Your task to perform on an android device: toggle improve location accuracy Image 0: 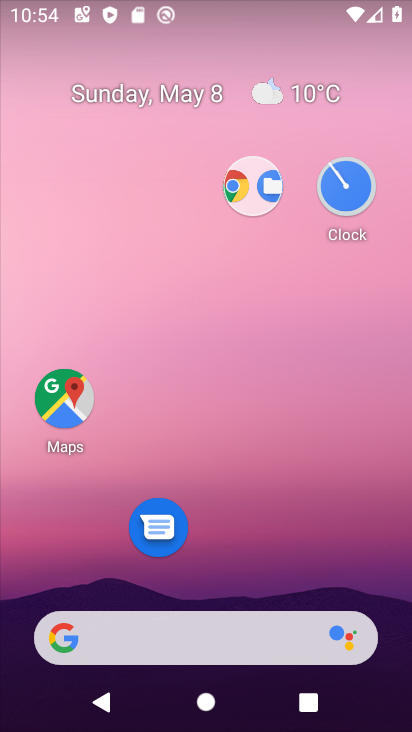
Step 0: drag from (306, 575) to (337, 5)
Your task to perform on an android device: toggle improve location accuracy Image 1: 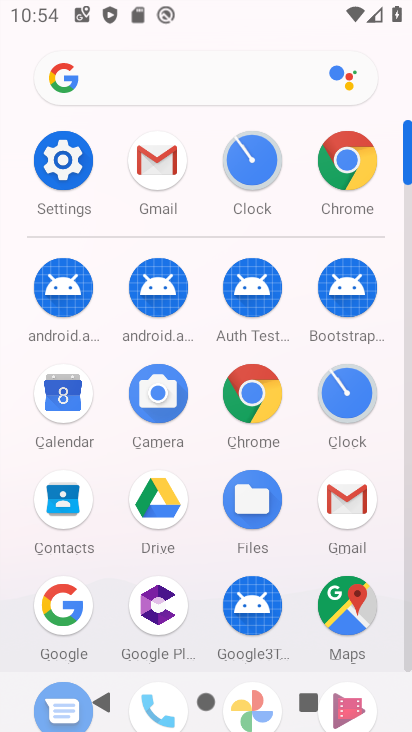
Step 1: click (83, 157)
Your task to perform on an android device: toggle improve location accuracy Image 2: 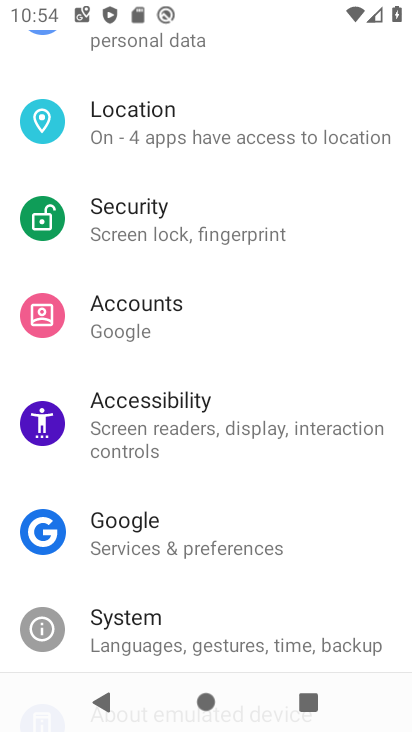
Step 2: click (87, 150)
Your task to perform on an android device: toggle improve location accuracy Image 3: 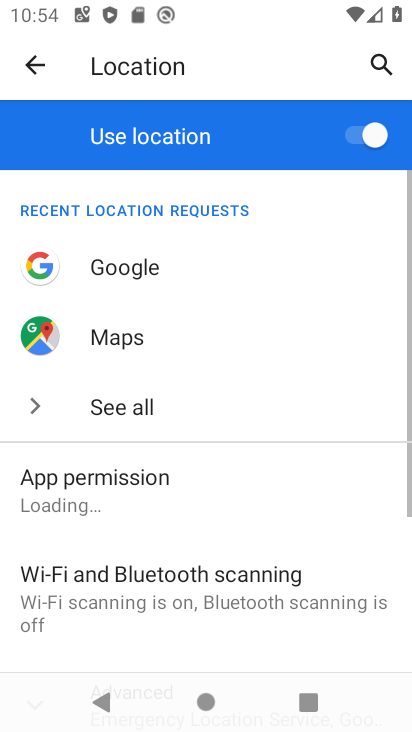
Step 3: drag from (159, 493) to (209, 328)
Your task to perform on an android device: toggle improve location accuracy Image 4: 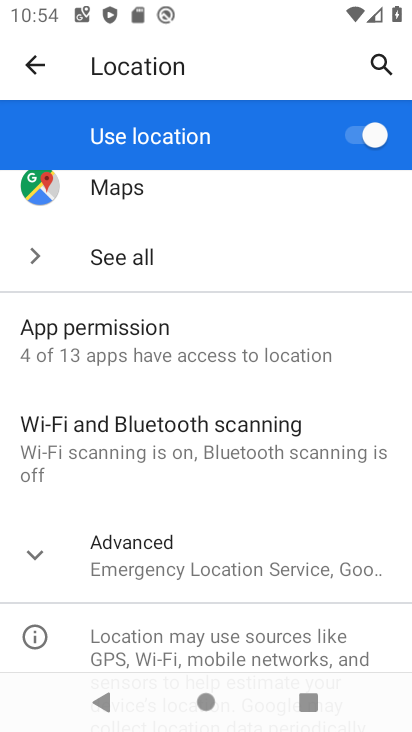
Step 4: click (218, 558)
Your task to perform on an android device: toggle improve location accuracy Image 5: 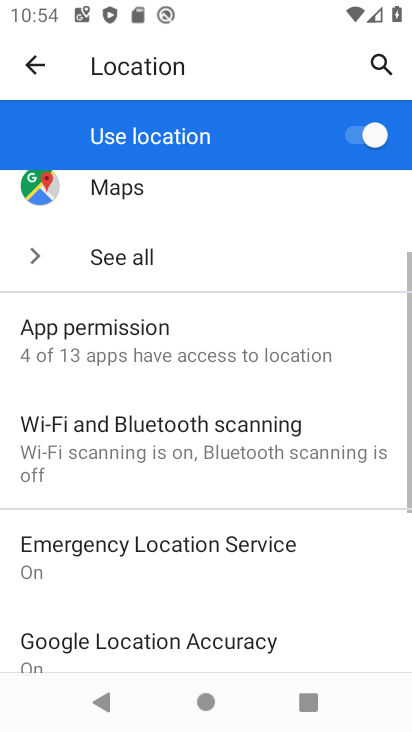
Step 5: drag from (220, 555) to (336, 167)
Your task to perform on an android device: toggle improve location accuracy Image 6: 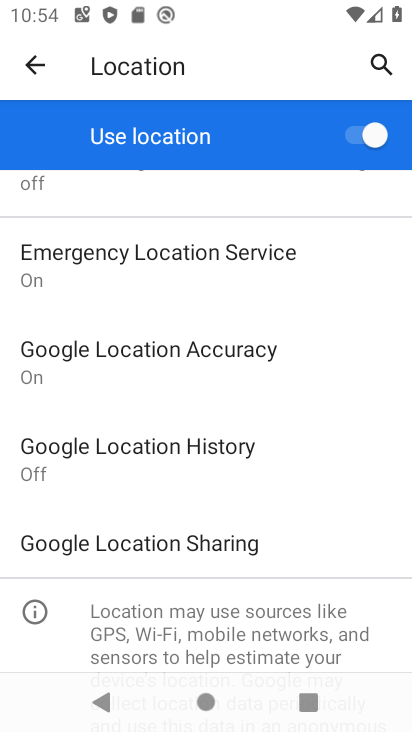
Step 6: click (267, 342)
Your task to perform on an android device: toggle improve location accuracy Image 7: 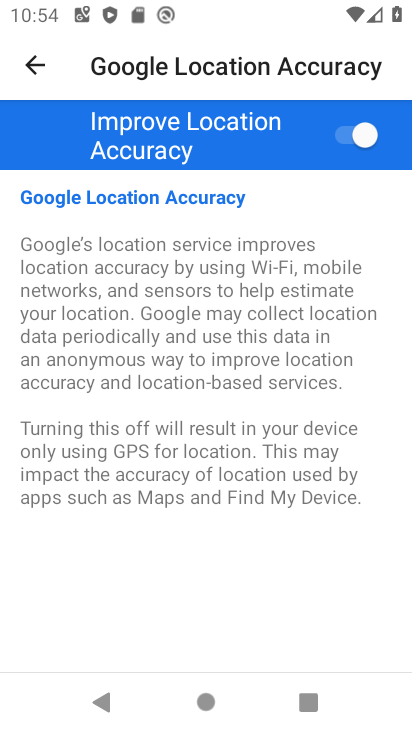
Step 7: click (353, 131)
Your task to perform on an android device: toggle improve location accuracy Image 8: 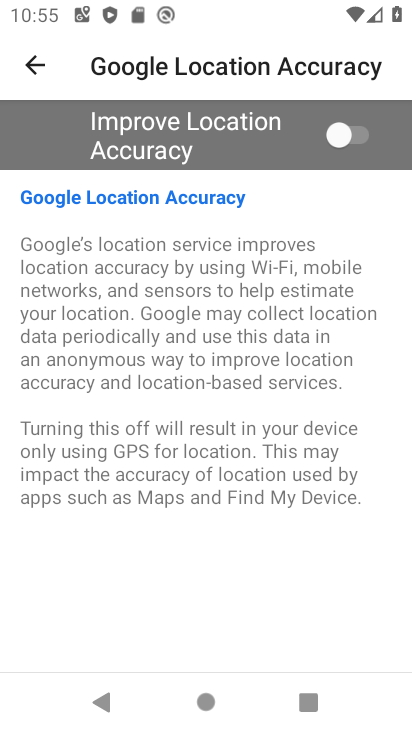
Step 8: task complete